Your task to perform on an android device: open app "Chime – Mobile Banking" (install if not already installed) and enter user name: "bullfrog@inbox.com" and password: "breaker" Image 0: 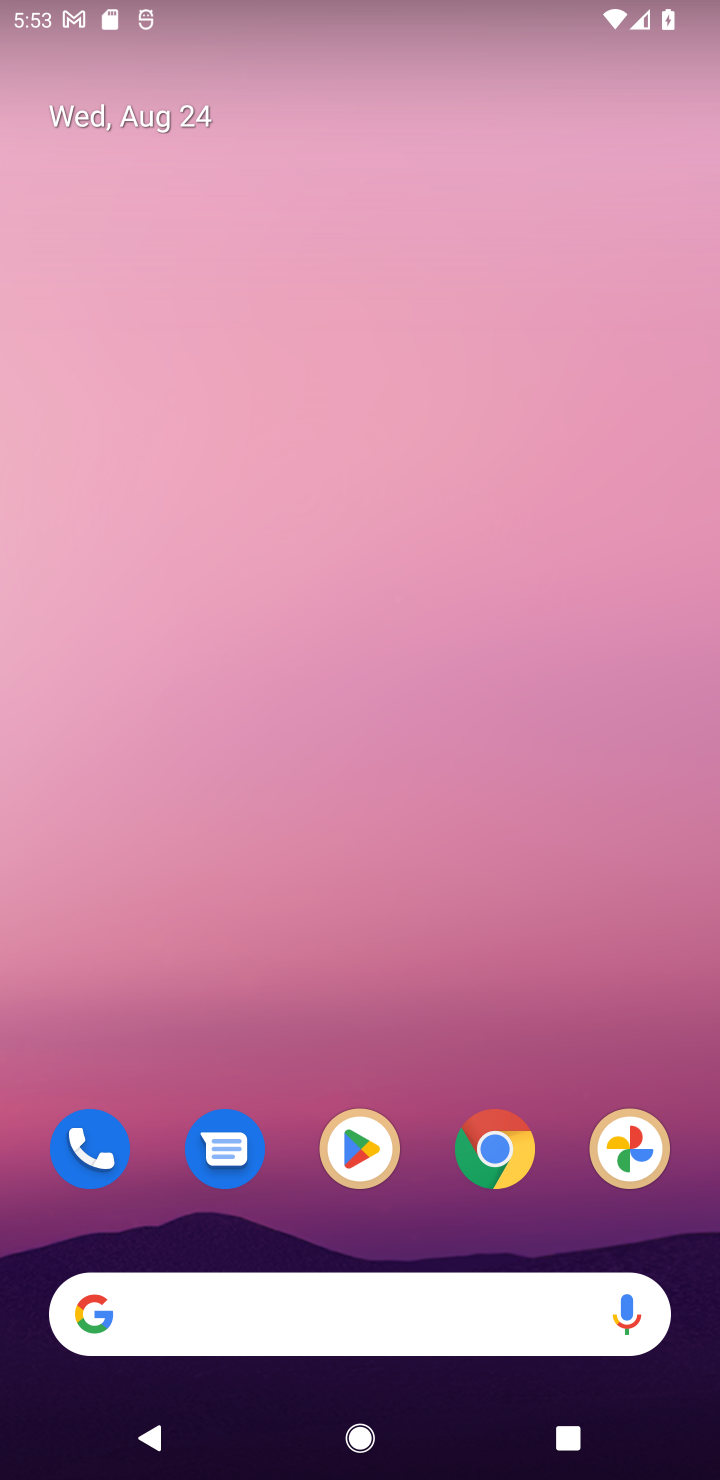
Step 0: click (365, 1150)
Your task to perform on an android device: open app "Chime – Mobile Banking" (install if not already installed) and enter user name: "bullfrog@inbox.com" and password: "breaker" Image 1: 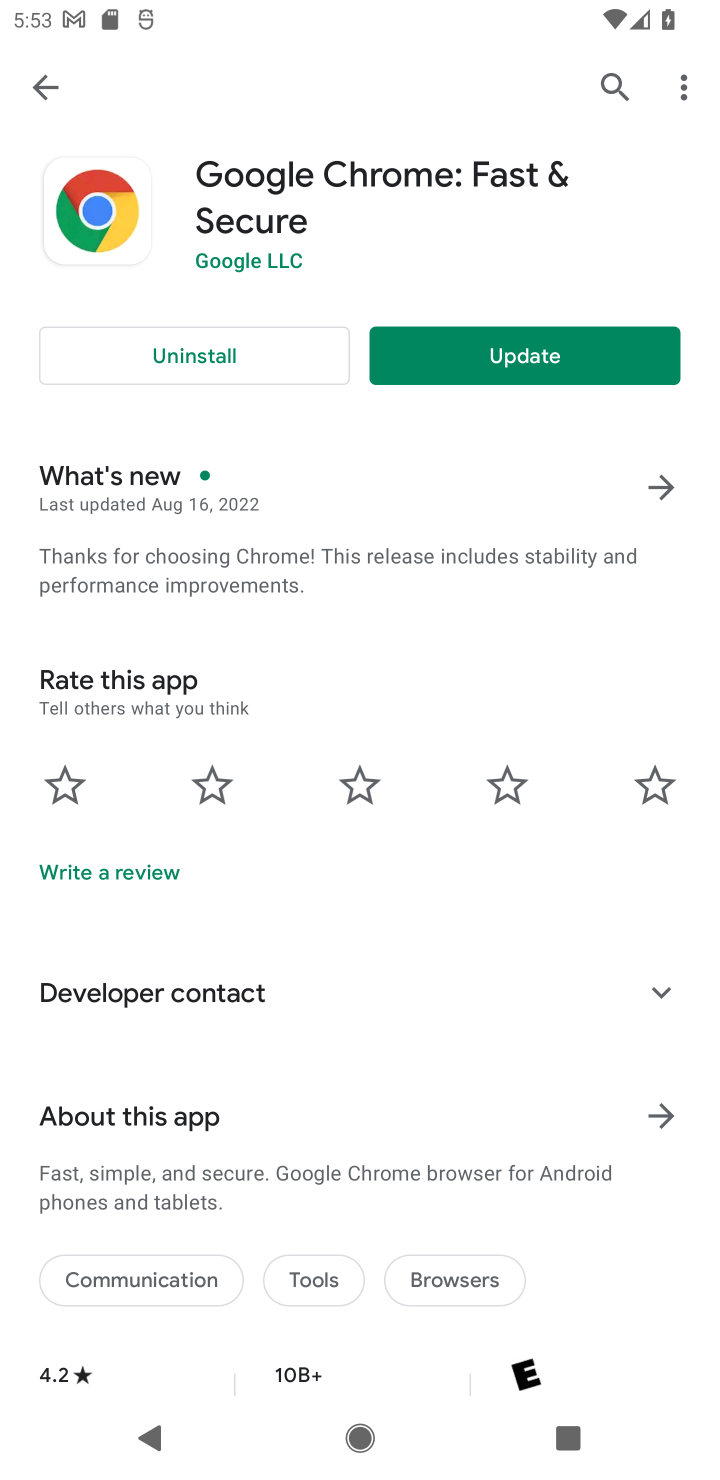
Step 1: click (615, 78)
Your task to perform on an android device: open app "Chime – Mobile Banking" (install if not already installed) and enter user name: "bullfrog@inbox.com" and password: "breaker" Image 2: 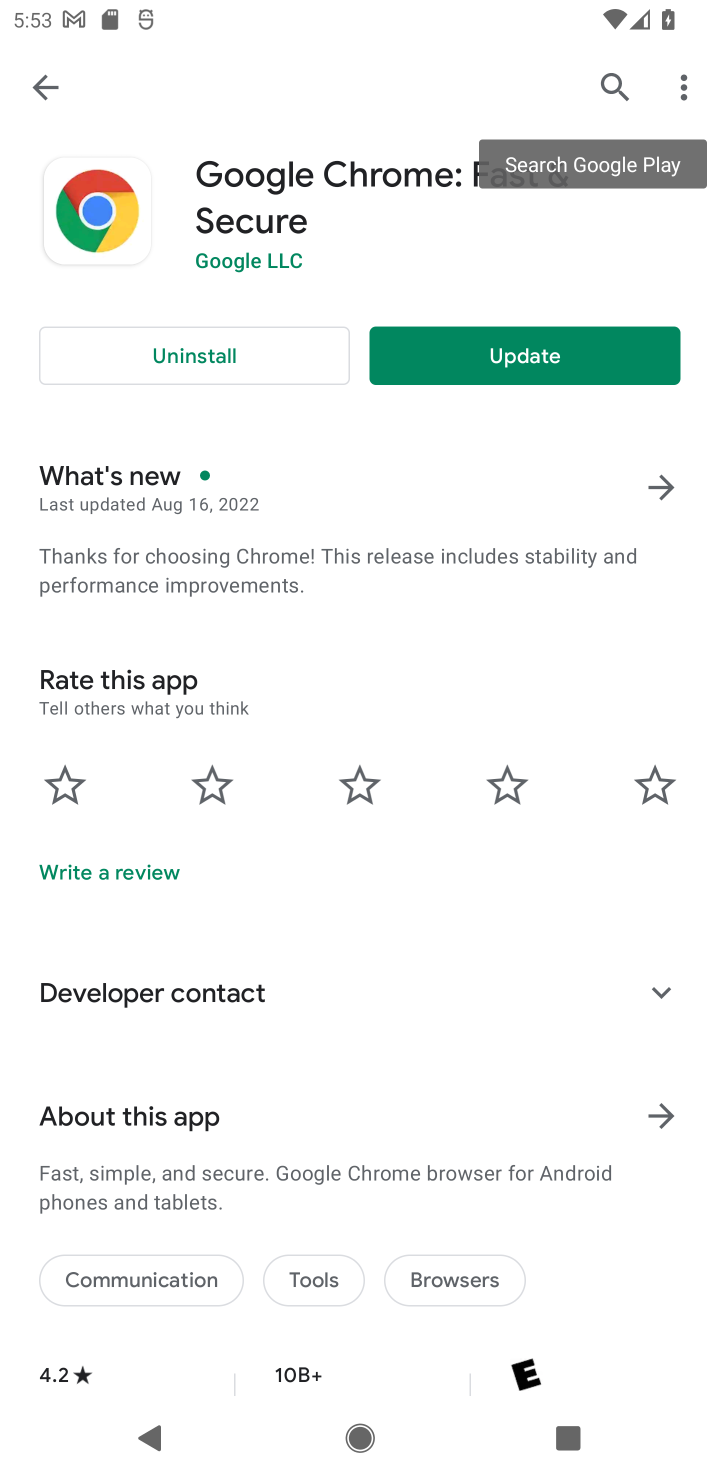
Step 2: click (596, 85)
Your task to perform on an android device: open app "Chime – Mobile Banking" (install if not already installed) and enter user name: "bullfrog@inbox.com" and password: "breaker" Image 3: 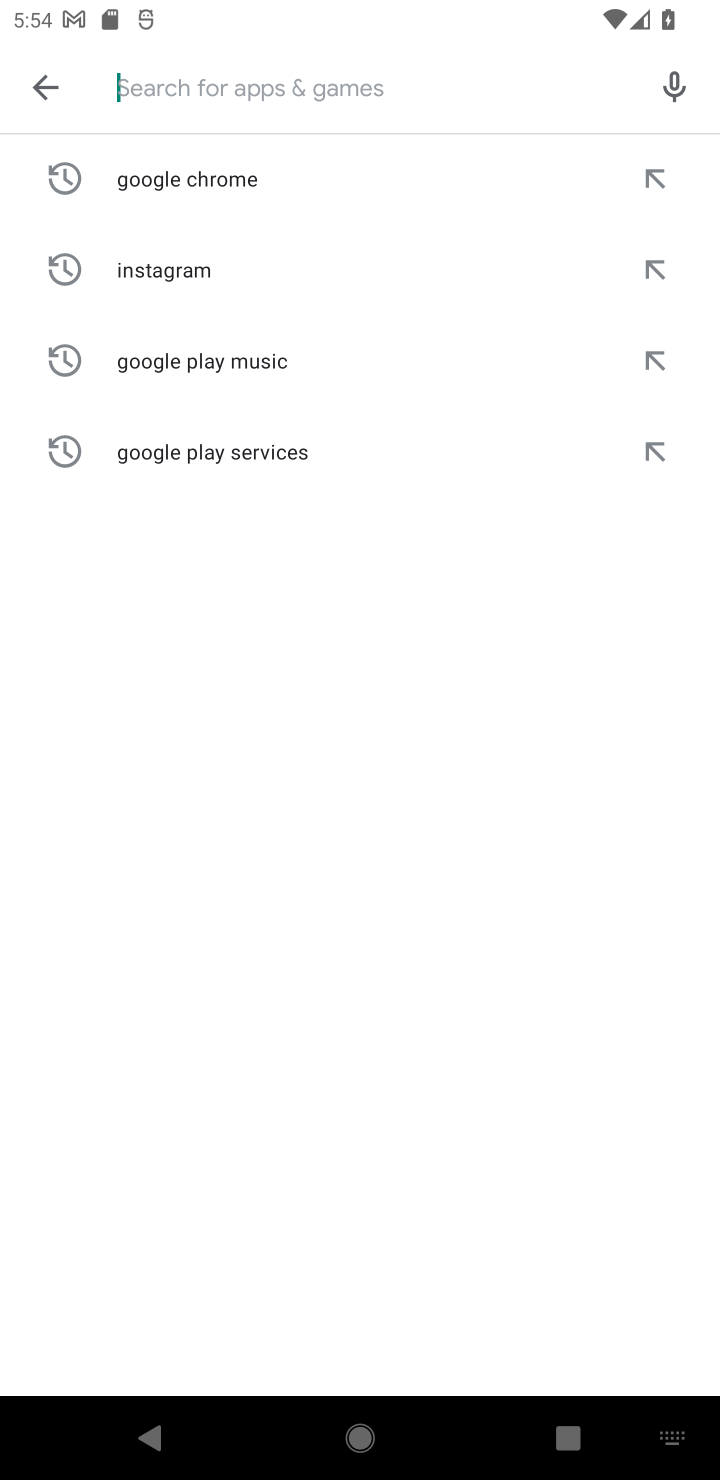
Step 3: type "Chime Mobile Banking"
Your task to perform on an android device: open app "Chime – Mobile Banking" (install if not already installed) and enter user name: "bullfrog@inbox.com" and password: "breaker" Image 4: 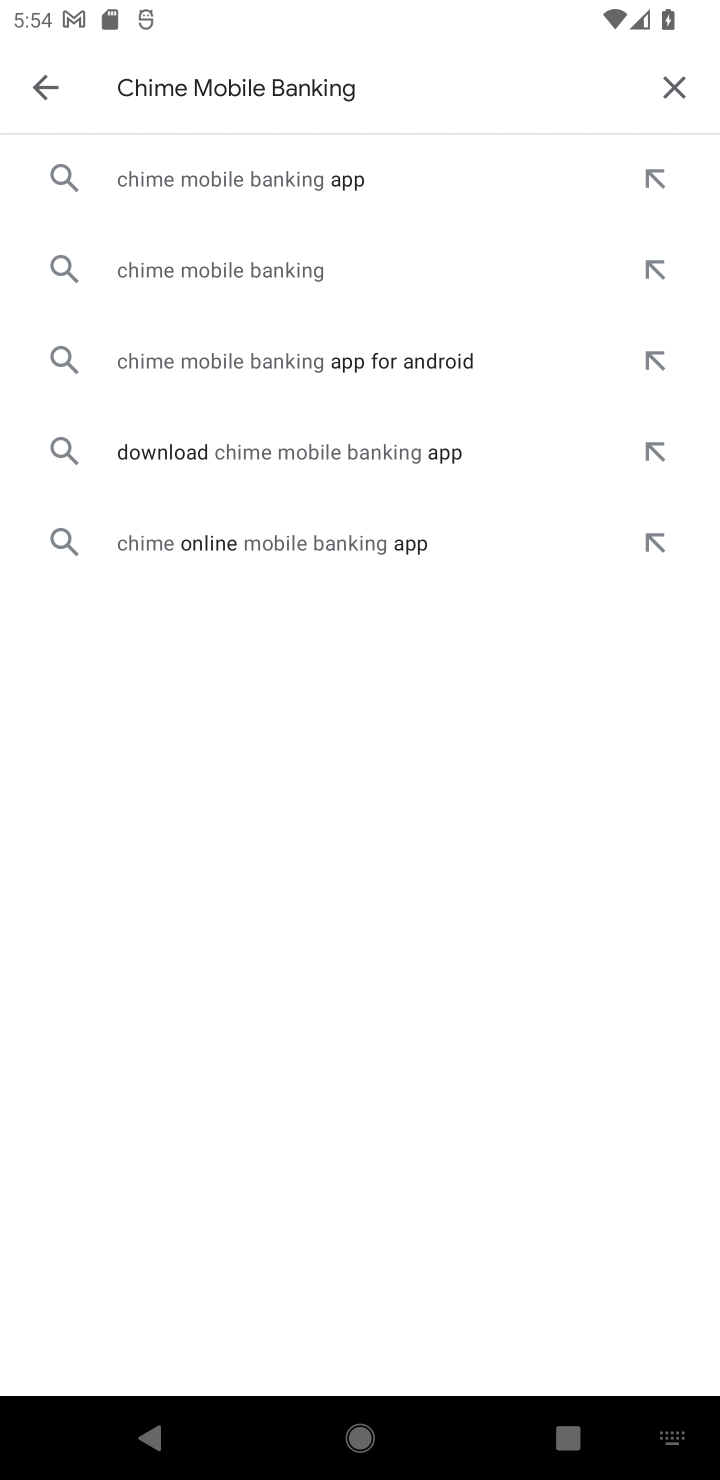
Step 4: click (279, 180)
Your task to perform on an android device: open app "Chime – Mobile Banking" (install if not already installed) and enter user name: "bullfrog@inbox.com" and password: "breaker" Image 5: 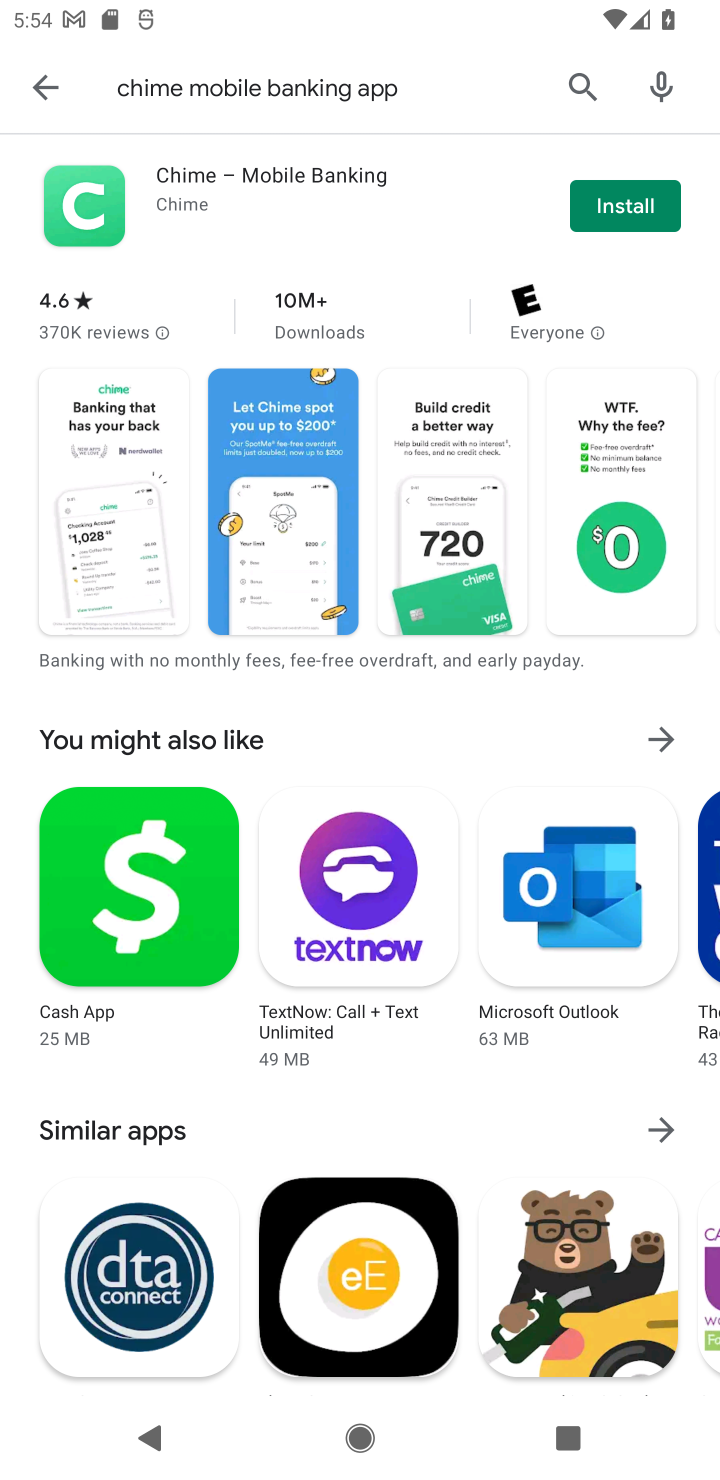
Step 5: click (608, 205)
Your task to perform on an android device: open app "Chime – Mobile Banking" (install if not already installed) and enter user name: "bullfrog@inbox.com" and password: "breaker" Image 6: 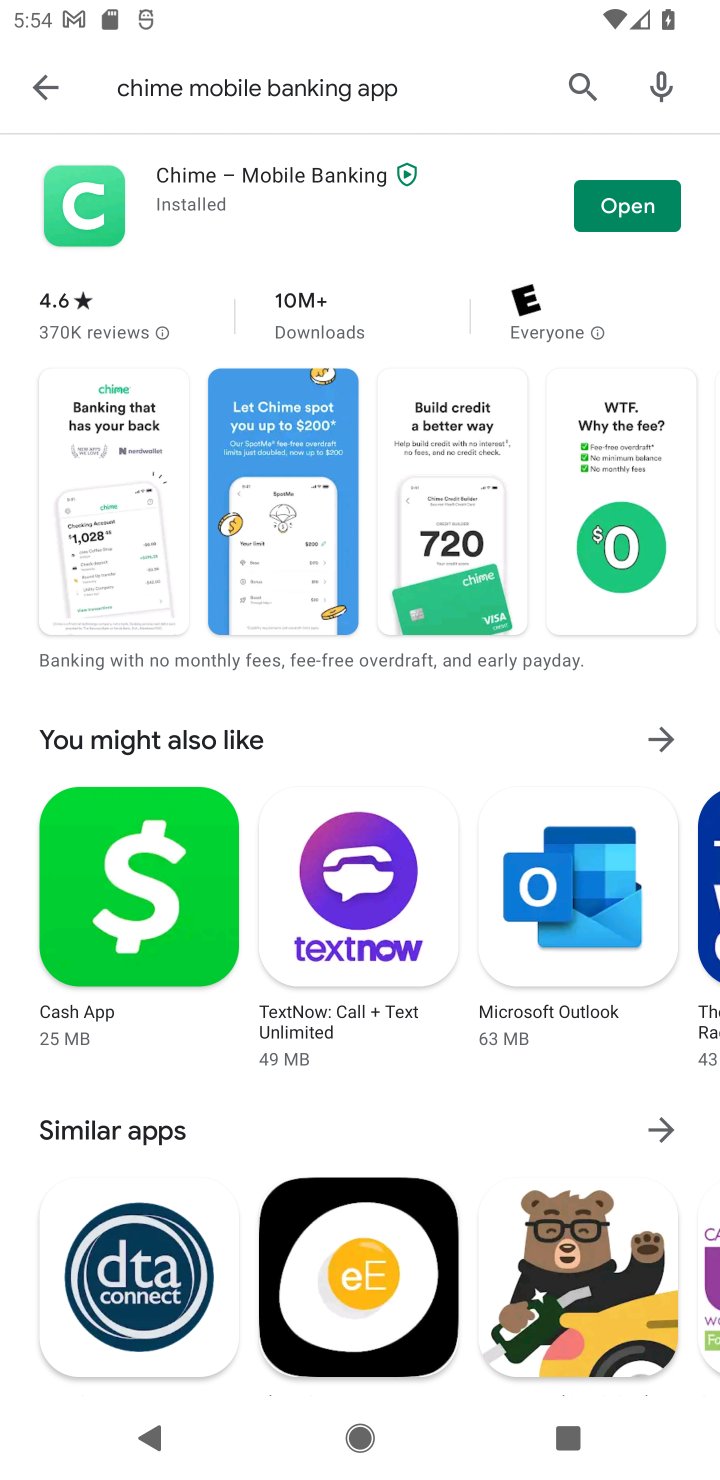
Step 6: click (634, 209)
Your task to perform on an android device: open app "Chime – Mobile Banking" (install if not already installed) and enter user name: "bullfrog@inbox.com" and password: "breaker" Image 7: 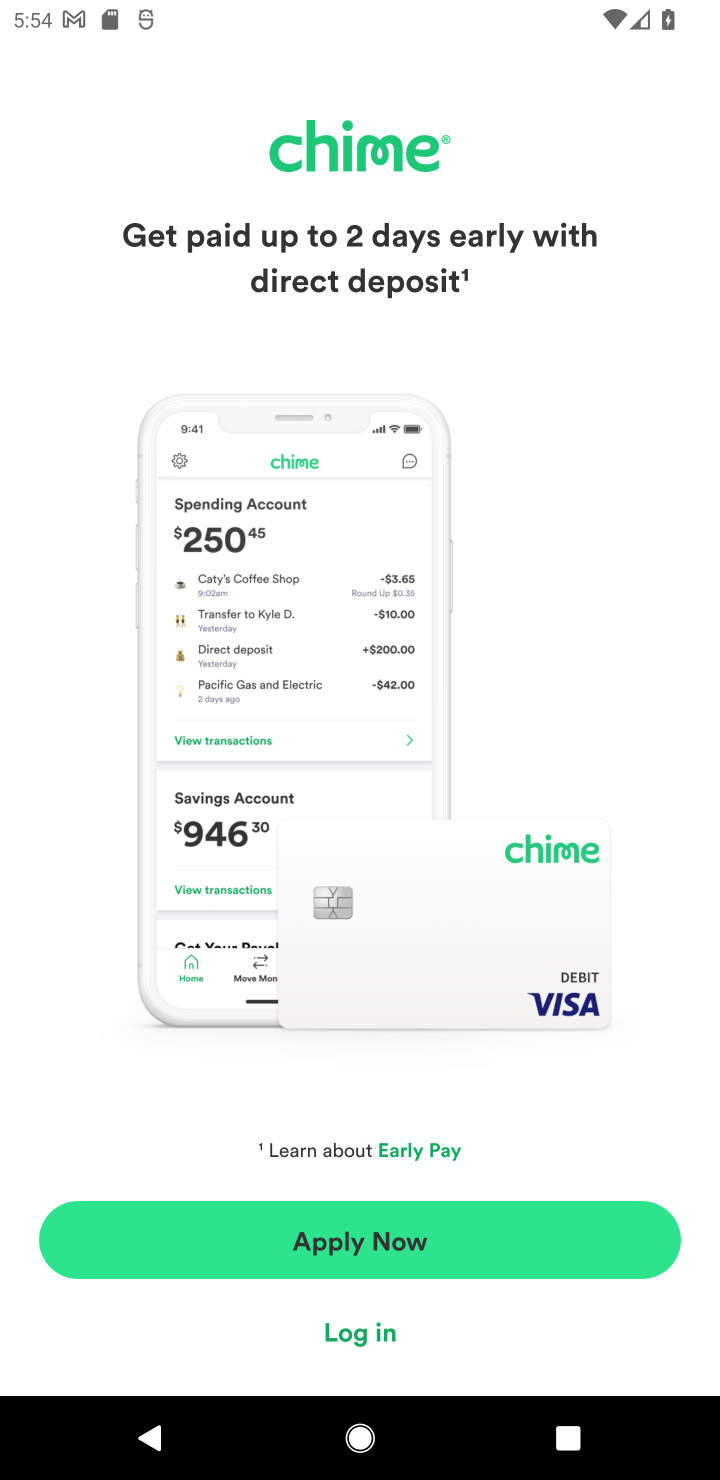
Step 7: click (333, 1329)
Your task to perform on an android device: open app "Chime – Mobile Banking" (install if not already installed) and enter user name: "bullfrog@inbox.com" and password: "breaker" Image 8: 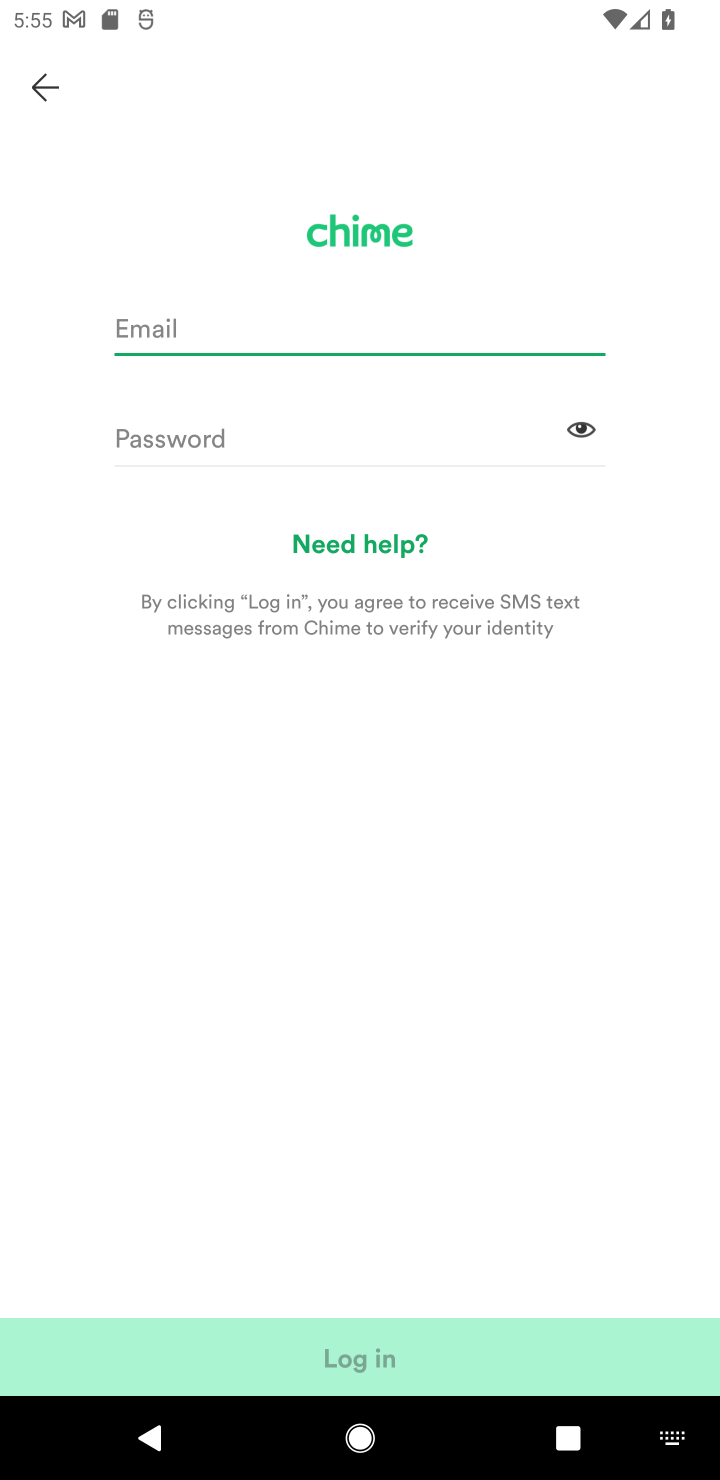
Step 8: type "bullfrog@inbox.com"
Your task to perform on an android device: open app "Chime – Mobile Banking" (install if not already installed) and enter user name: "bullfrog@inbox.com" and password: "breaker" Image 9: 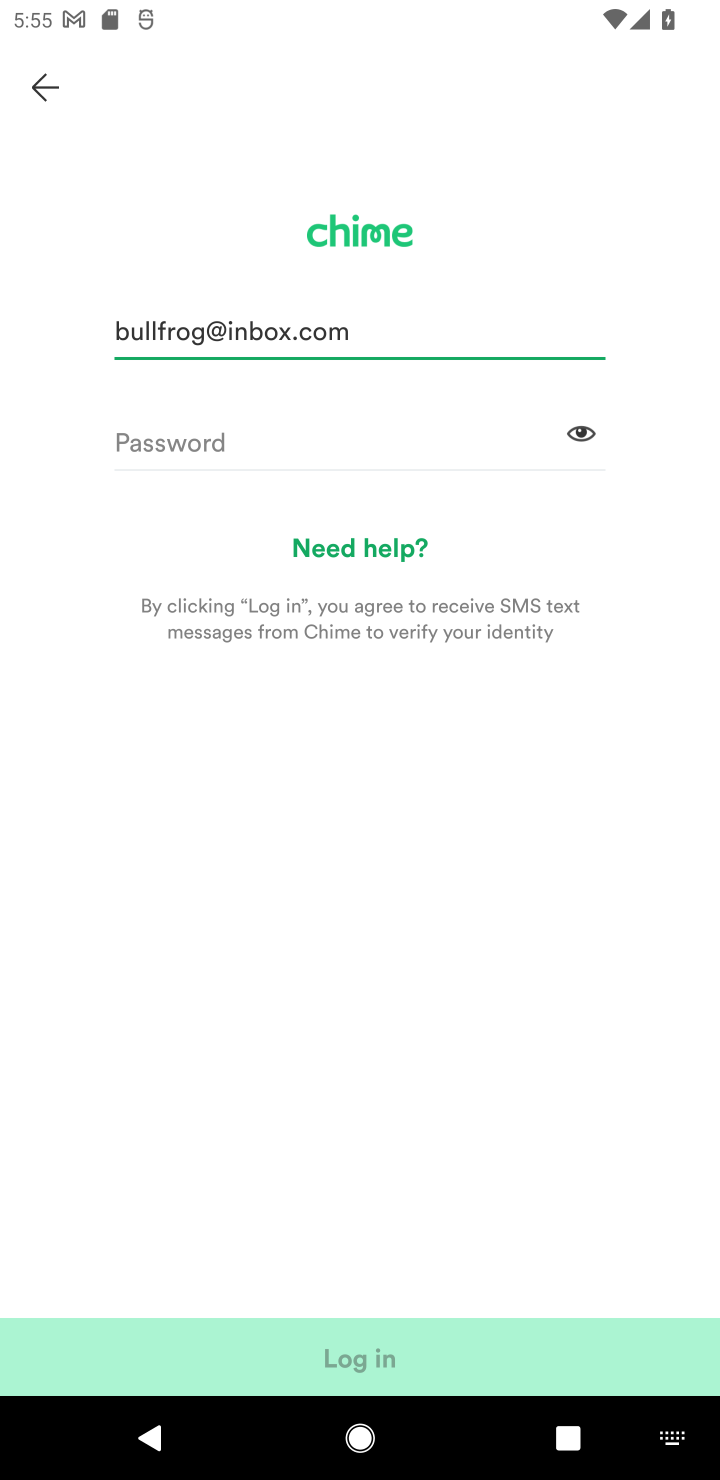
Step 9: click (167, 431)
Your task to perform on an android device: open app "Chime – Mobile Banking" (install if not already installed) and enter user name: "bullfrog@inbox.com" and password: "breaker" Image 10: 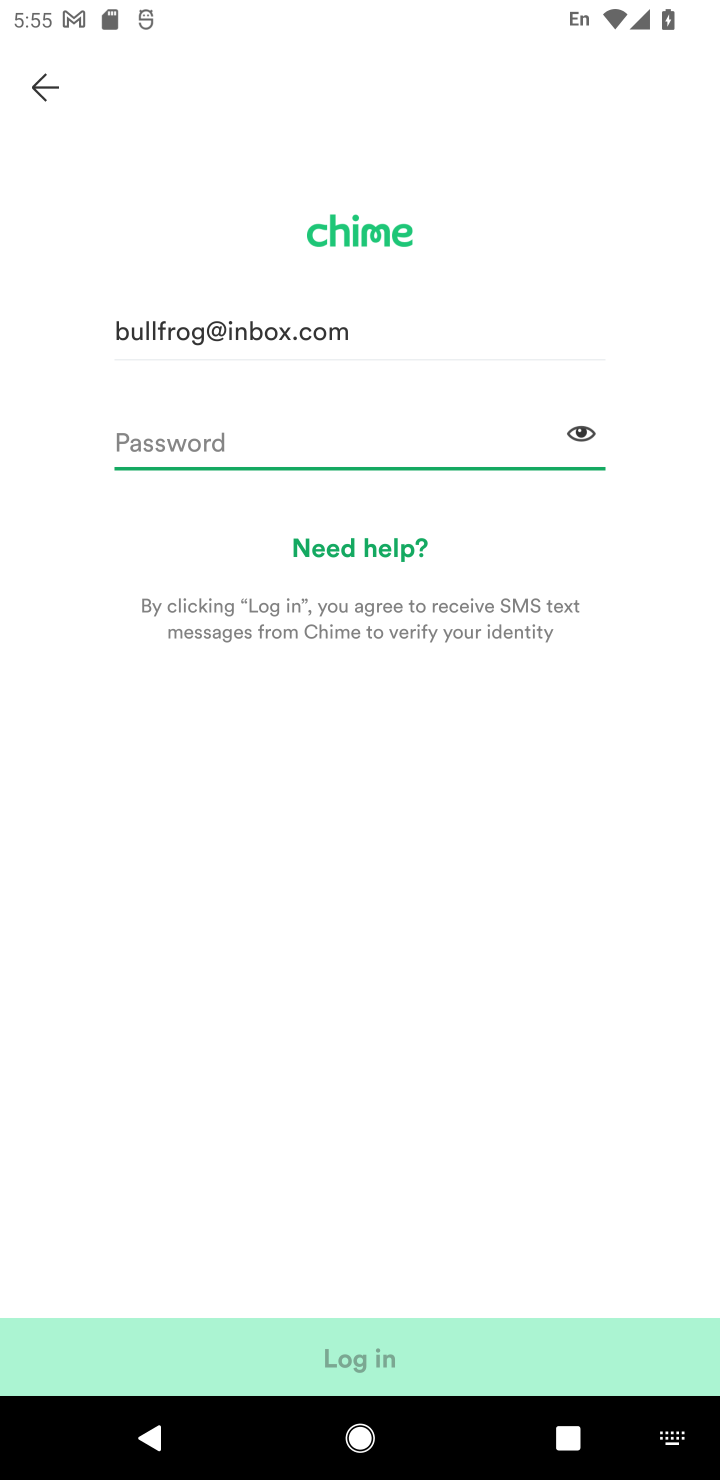
Step 10: type "breaker"
Your task to perform on an android device: open app "Chime – Mobile Banking" (install if not already installed) and enter user name: "bullfrog@inbox.com" and password: "breaker" Image 11: 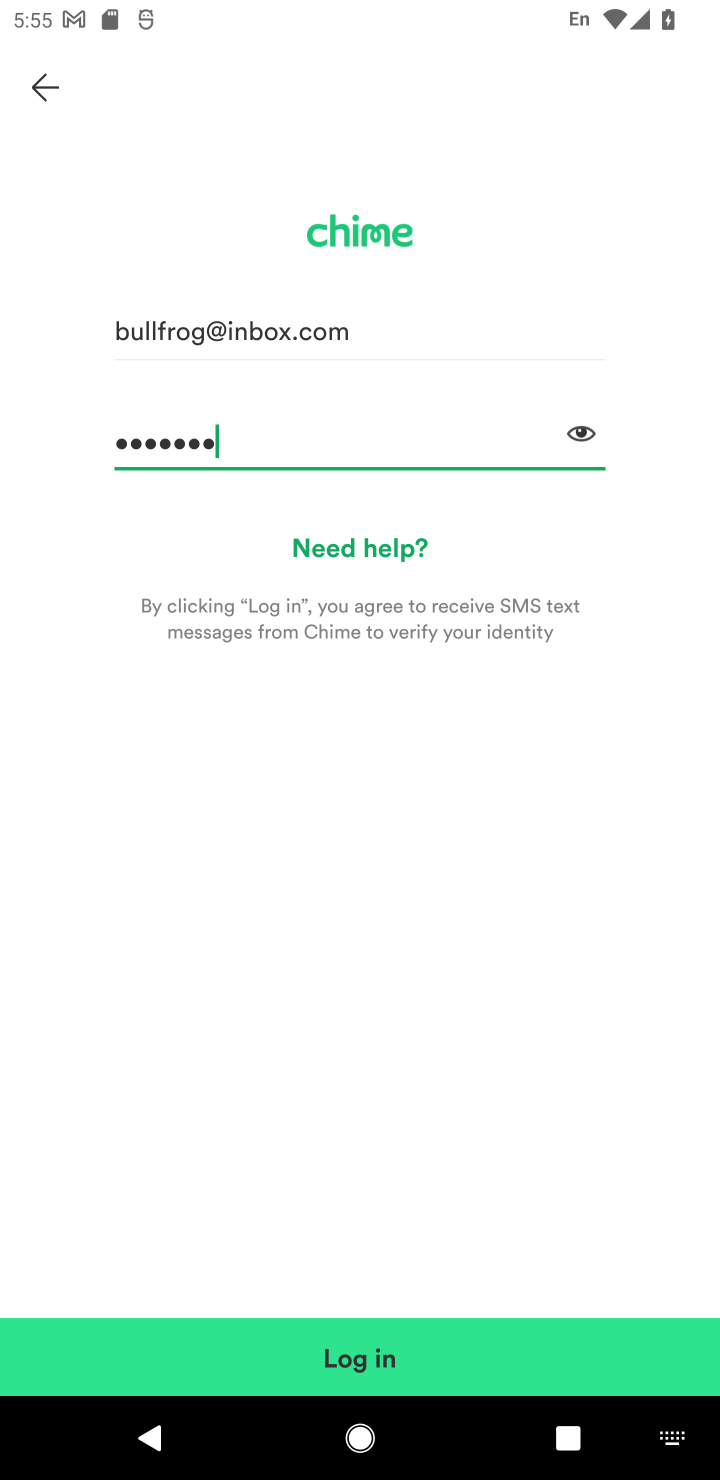
Step 11: task complete